Your task to perform on an android device: Go to calendar. Show me events next week Image 0: 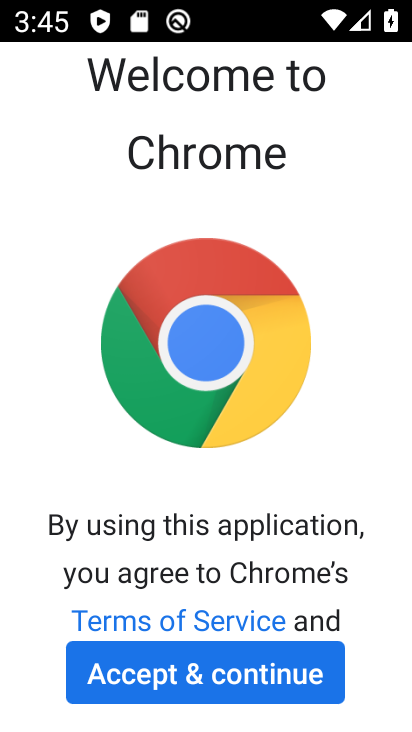
Step 0: press home button
Your task to perform on an android device: Go to calendar. Show me events next week Image 1: 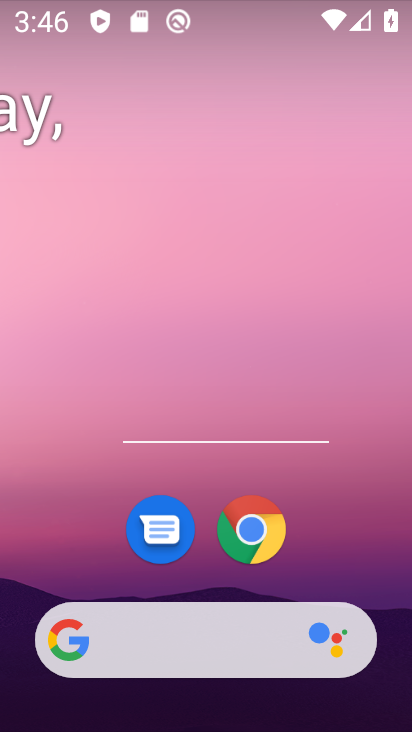
Step 1: drag from (108, 589) to (163, 269)
Your task to perform on an android device: Go to calendar. Show me events next week Image 2: 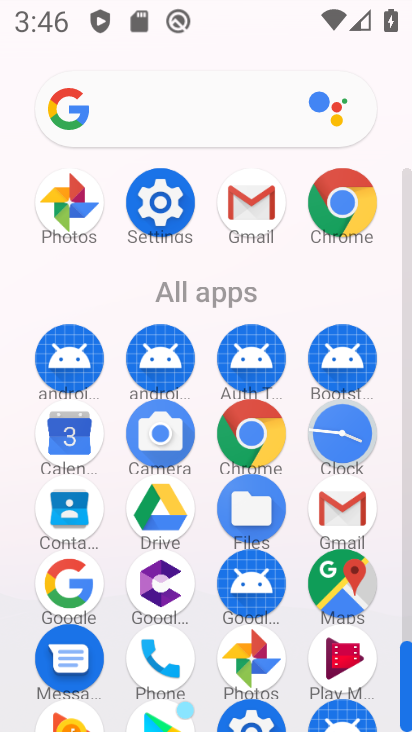
Step 2: click (77, 458)
Your task to perform on an android device: Go to calendar. Show me events next week Image 3: 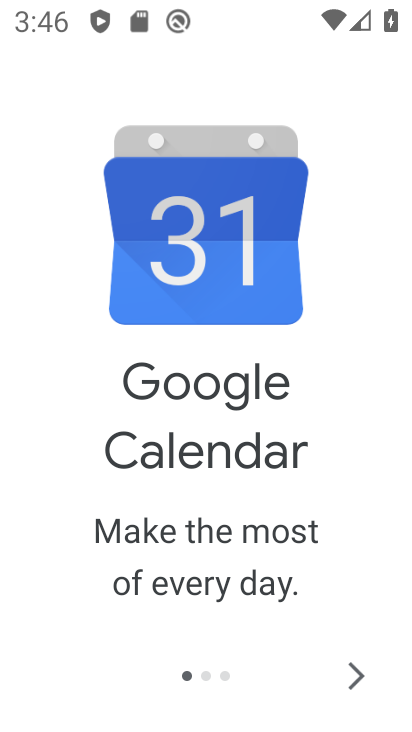
Step 3: click (365, 678)
Your task to perform on an android device: Go to calendar. Show me events next week Image 4: 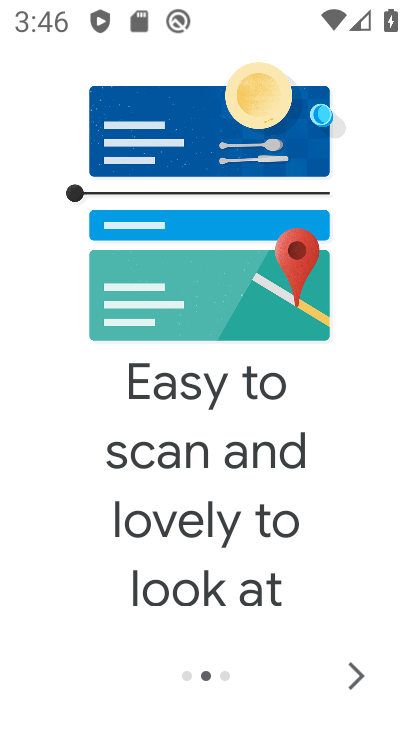
Step 4: click (365, 678)
Your task to perform on an android device: Go to calendar. Show me events next week Image 5: 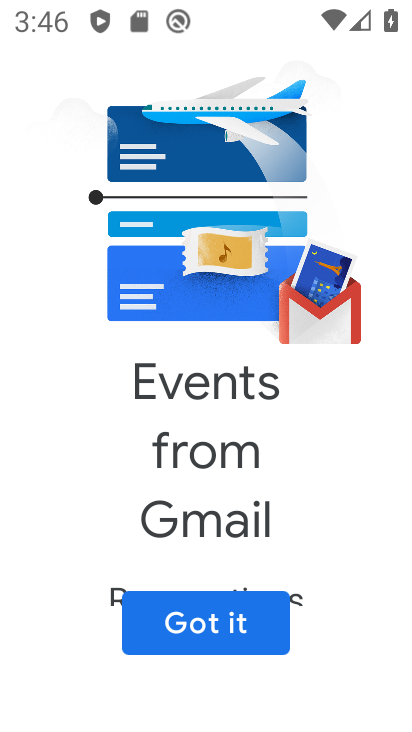
Step 5: click (247, 644)
Your task to perform on an android device: Go to calendar. Show me events next week Image 6: 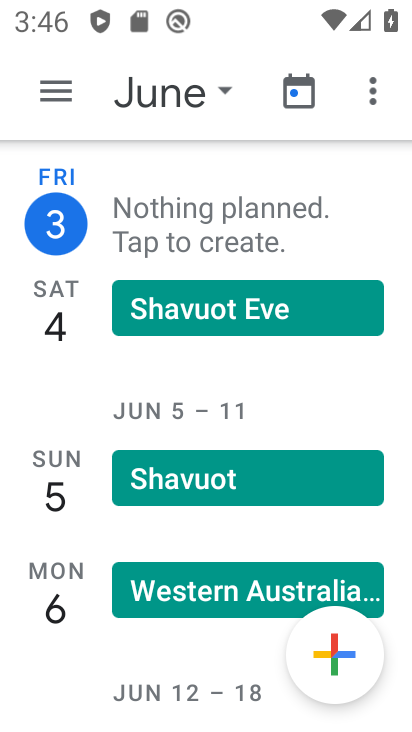
Step 6: click (74, 93)
Your task to perform on an android device: Go to calendar. Show me events next week Image 7: 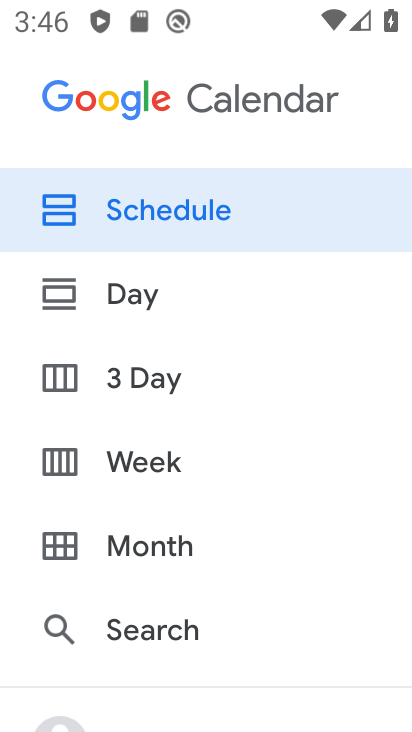
Step 7: click (134, 471)
Your task to perform on an android device: Go to calendar. Show me events next week Image 8: 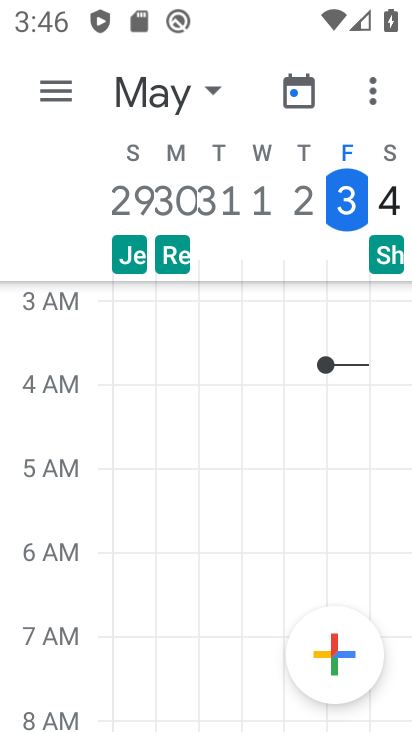
Step 8: click (215, 86)
Your task to perform on an android device: Go to calendar. Show me events next week Image 9: 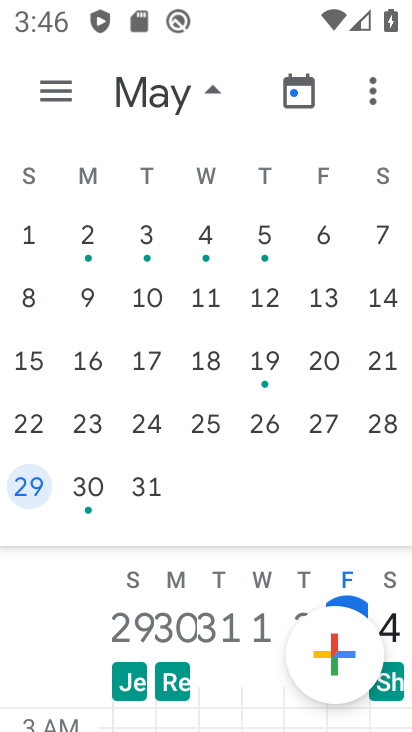
Step 9: drag from (356, 431) to (13, 417)
Your task to perform on an android device: Go to calendar. Show me events next week Image 10: 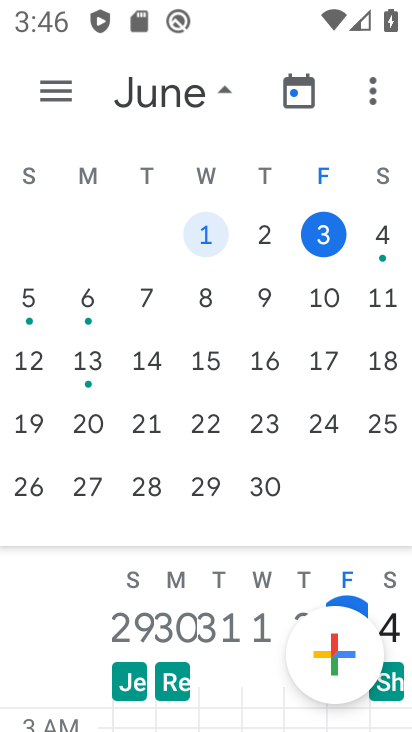
Step 10: drag from (349, 307) to (80, 283)
Your task to perform on an android device: Go to calendar. Show me events next week Image 11: 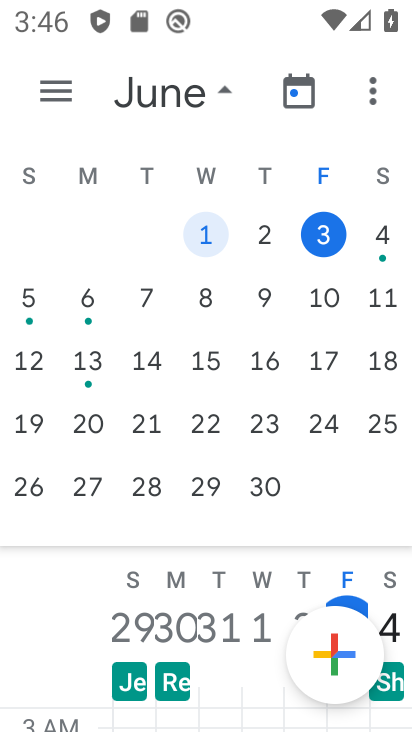
Step 11: click (30, 357)
Your task to perform on an android device: Go to calendar. Show me events next week Image 12: 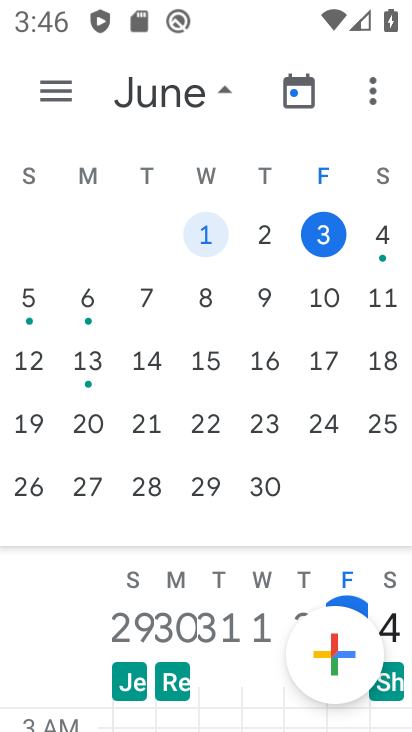
Step 12: click (17, 372)
Your task to perform on an android device: Go to calendar. Show me events next week Image 13: 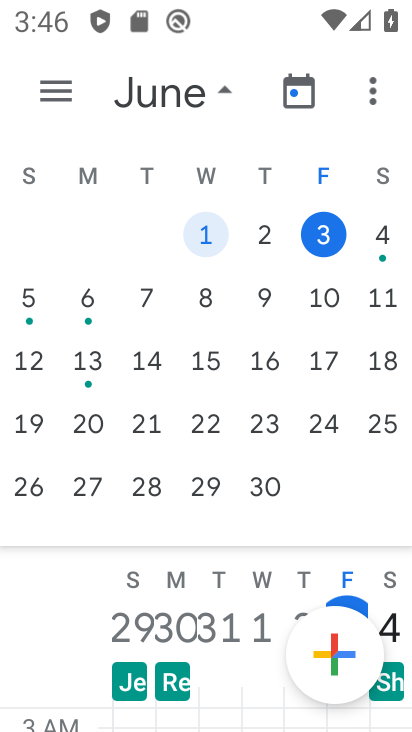
Step 13: click (22, 359)
Your task to perform on an android device: Go to calendar. Show me events next week Image 14: 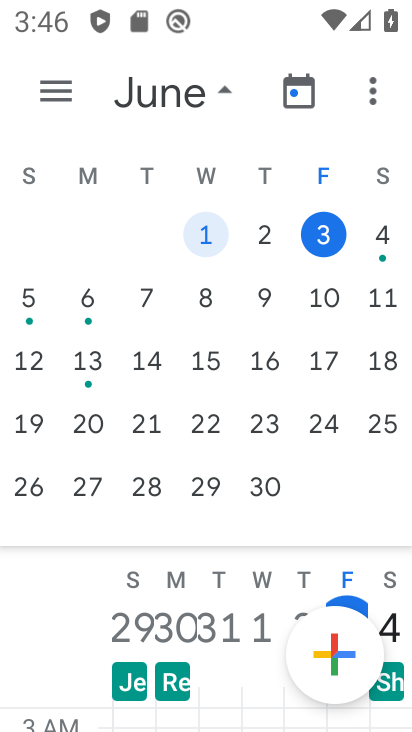
Step 14: click (31, 363)
Your task to perform on an android device: Go to calendar. Show me events next week Image 15: 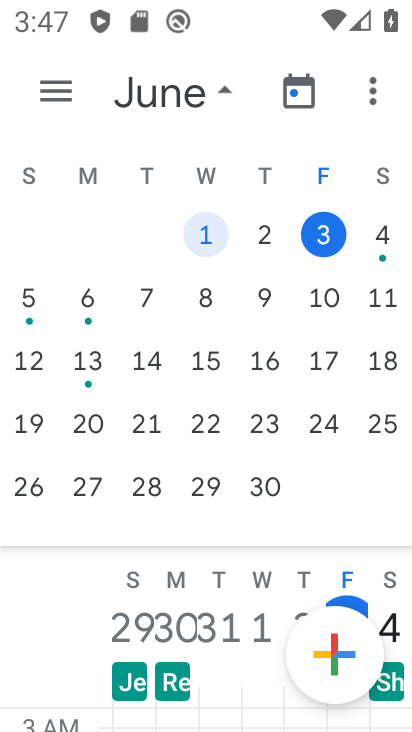
Step 15: click (31, 363)
Your task to perform on an android device: Go to calendar. Show me events next week Image 16: 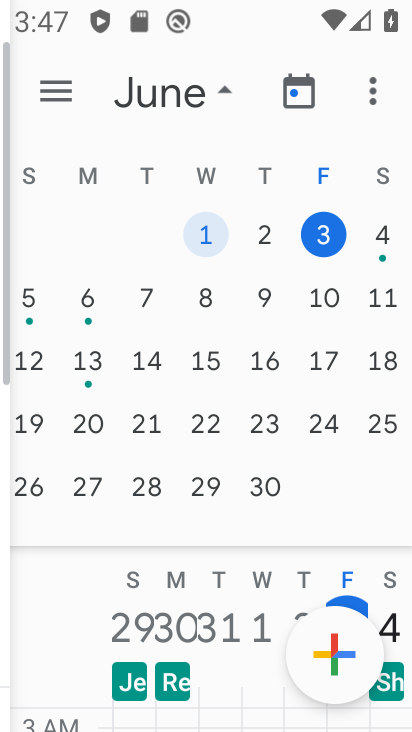
Step 16: click (33, 374)
Your task to perform on an android device: Go to calendar. Show me events next week Image 17: 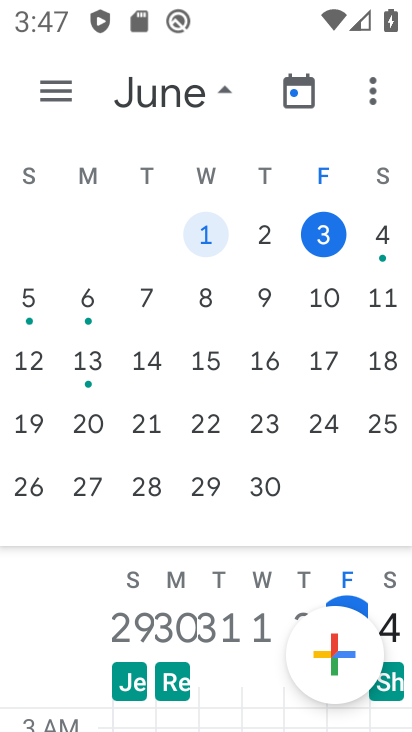
Step 17: click (36, 376)
Your task to perform on an android device: Go to calendar. Show me events next week Image 18: 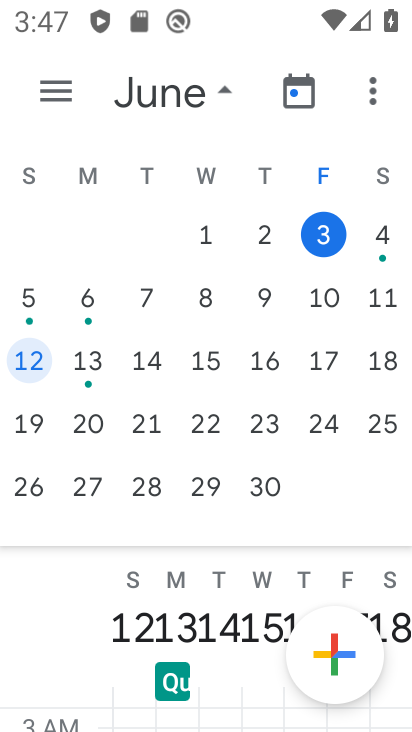
Step 18: click (222, 93)
Your task to perform on an android device: Go to calendar. Show me events next week Image 19: 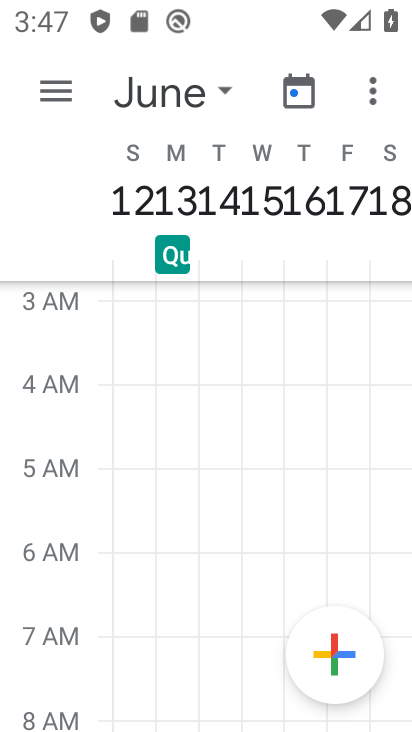
Step 19: task complete